Your task to perform on an android device: search for starred emails in the gmail app Image 0: 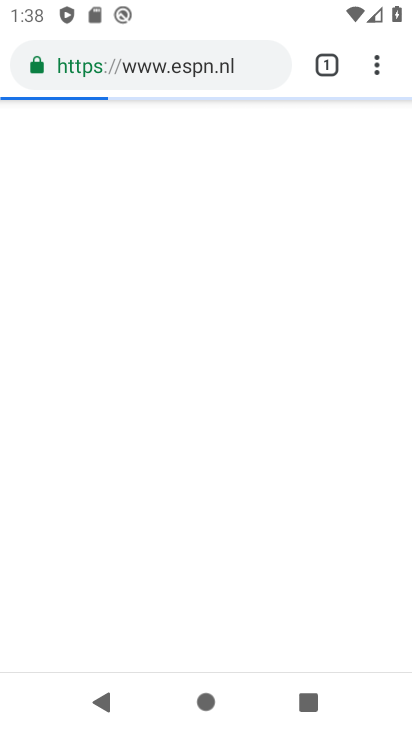
Step 0: press home button
Your task to perform on an android device: search for starred emails in the gmail app Image 1: 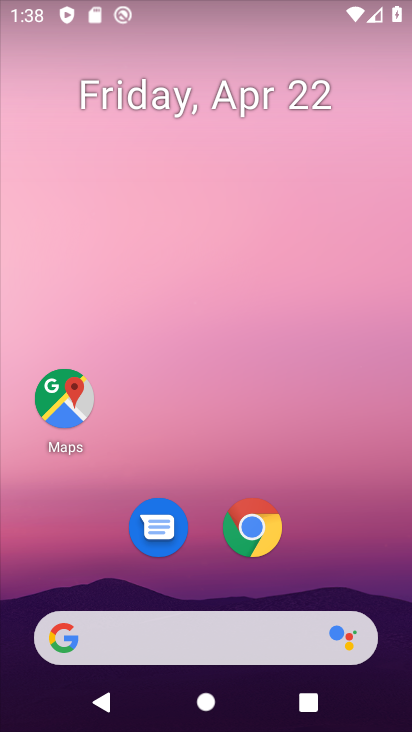
Step 1: drag from (384, 602) to (290, 43)
Your task to perform on an android device: search for starred emails in the gmail app Image 2: 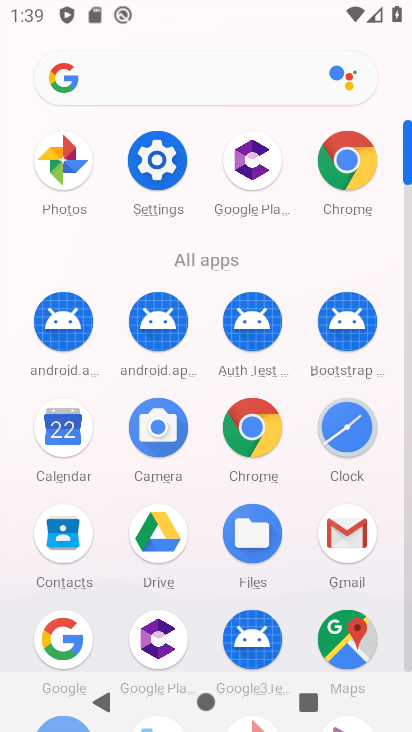
Step 2: click (332, 518)
Your task to perform on an android device: search for starred emails in the gmail app Image 3: 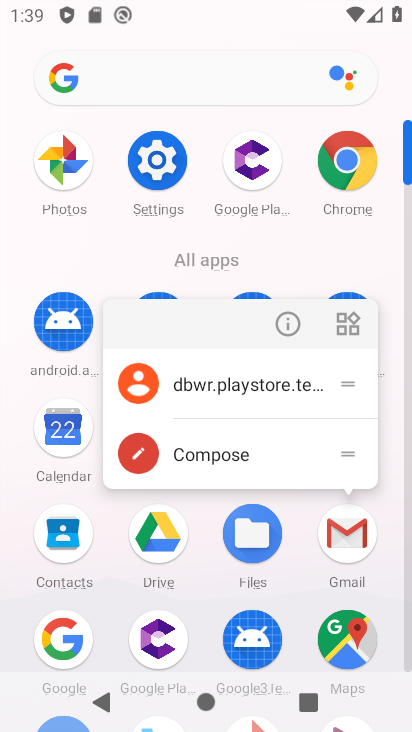
Step 3: click (334, 522)
Your task to perform on an android device: search for starred emails in the gmail app Image 4: 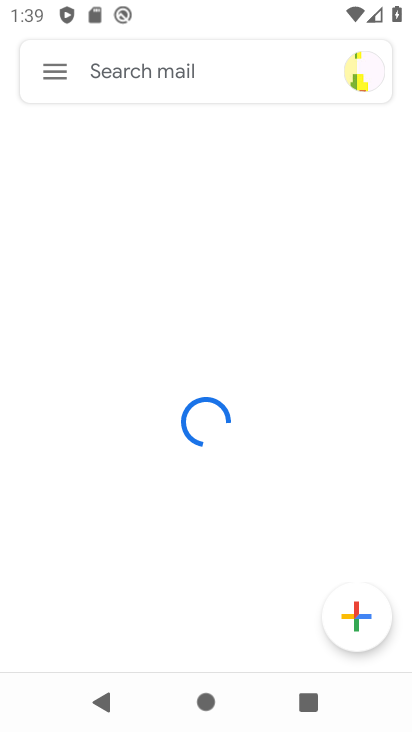
Step 4: click (55, 67)
Your task to perform on an android device: search for starred emails in the gmail app Image 5: 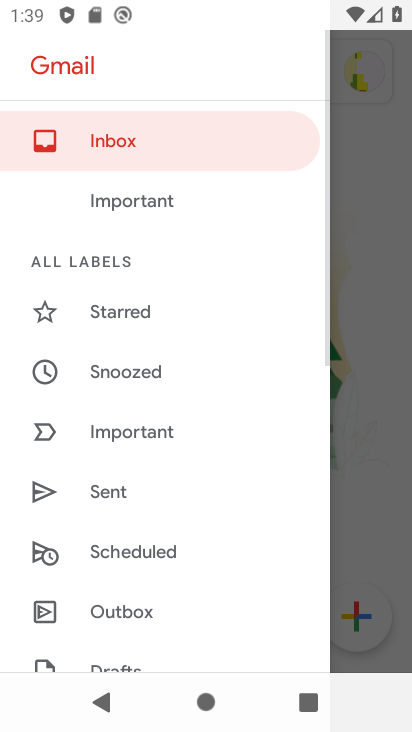
Step 5: click (128, 316)
Your task to perform on an android device: search for starred emails in the gmail app Image 6: 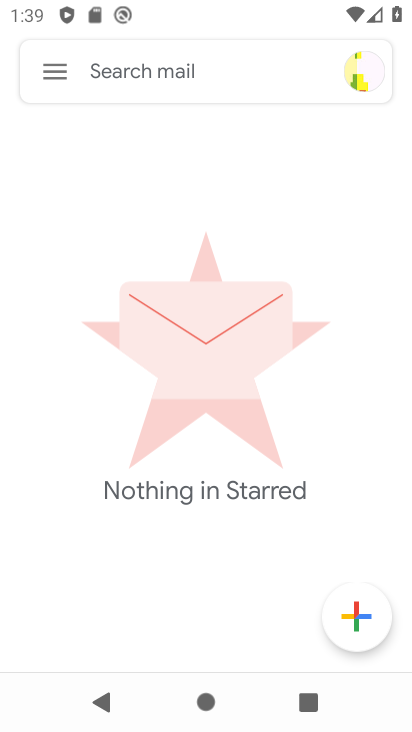
Step 6: task complete